Your task to perform on an android device: turn off priority inbox in the gmail app Image 0: 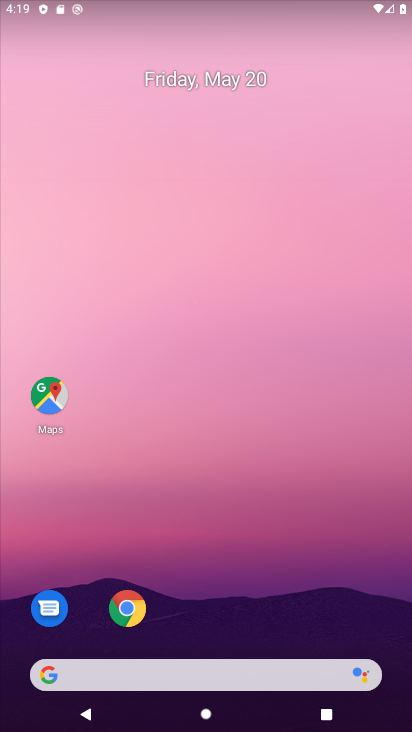
Step 0: drag from (231, 649) to (116, 12)
Your task to perform on an android device: turn off priority inbox in the gmail app Image 1: 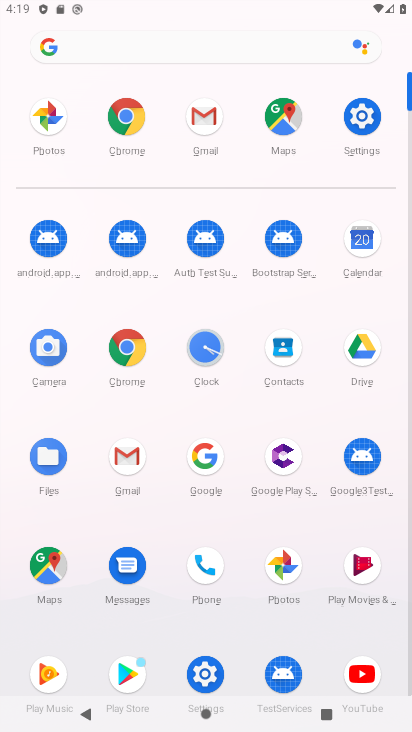
Step 1: click (134, 452)
Your task to perform on an android device: turn off priority inbox in the gmail app Image 2: 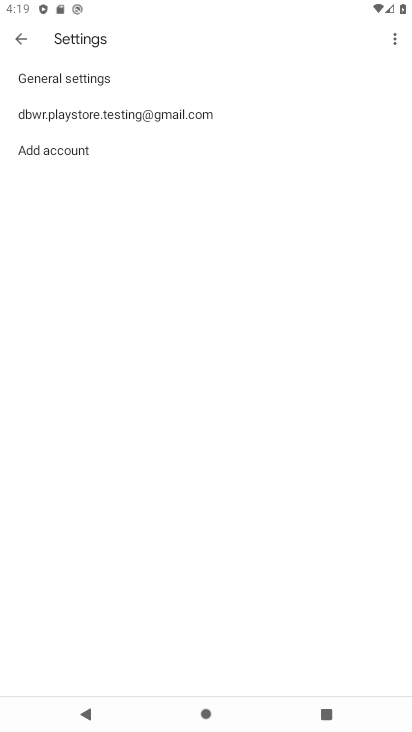
Step 2: click (35, 123)
Your task to perform on an android device: turn off priority inbox in the gmail app Image 3: 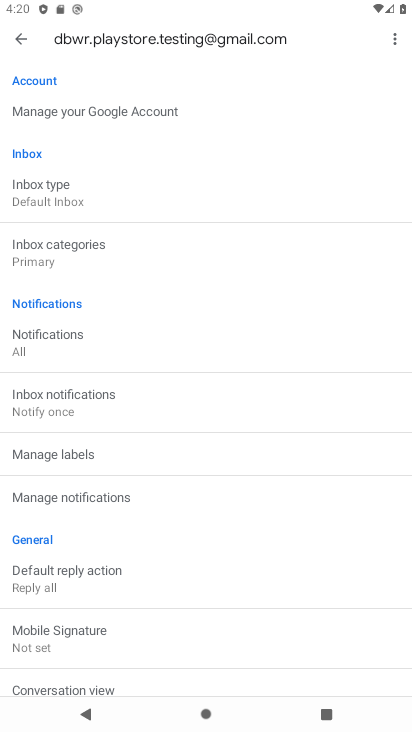
Step 3: click (53, 194)
Your task to perform on an android device: turn off priority inbox in the gmail app Image 4: 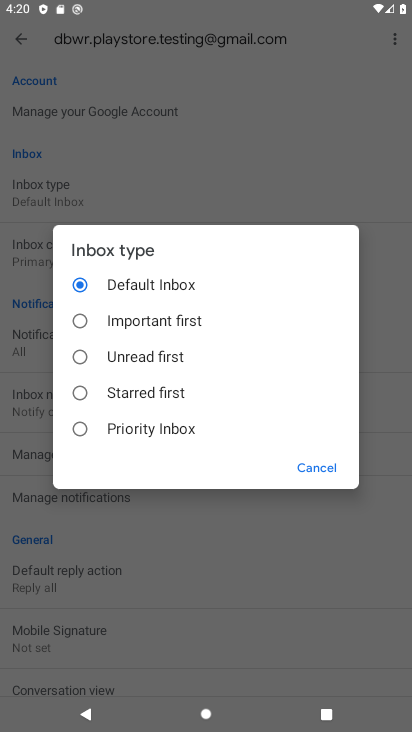
Step 4: task complete